Your task to perform on an android device: Go to Yahoo.com Image 0: 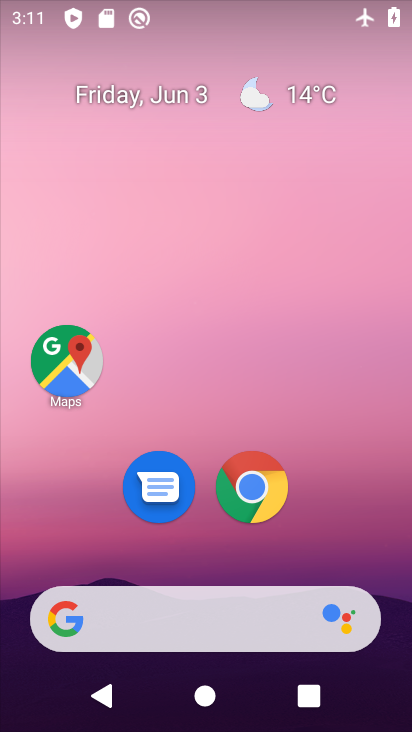
Step 0: click (268, 493)
Your task to perform on an android device: Go to Yahoo.com Image 1: 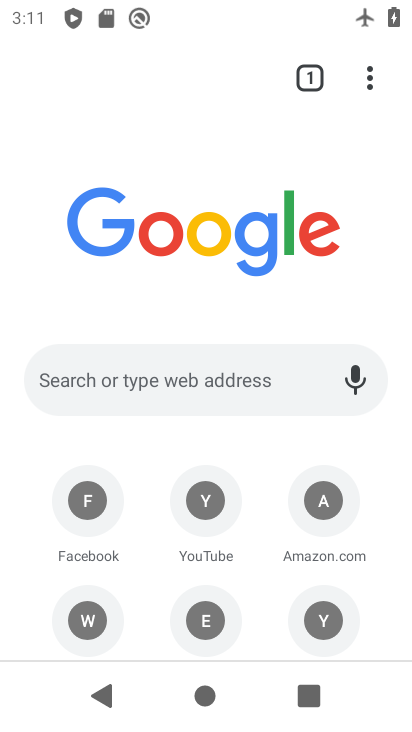
Step 1: drag from (189, 509) to (259, 268)
Your task to perform on an android device: Go to Yahoo.com Image 2: 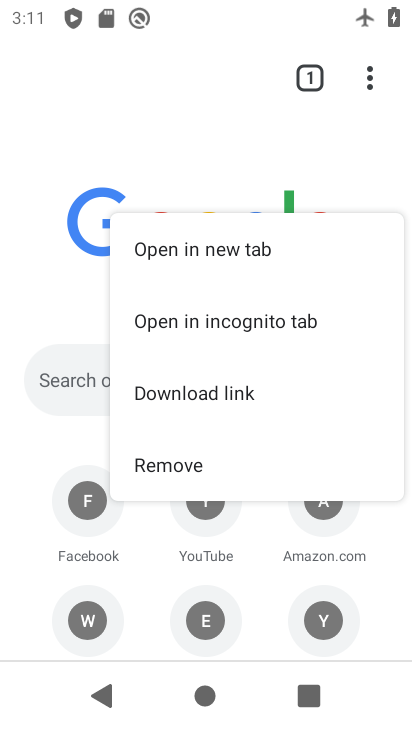
Step 2: click (22, 260)
Your task to perform on an android device: Go to Yahoo.com Image 3: 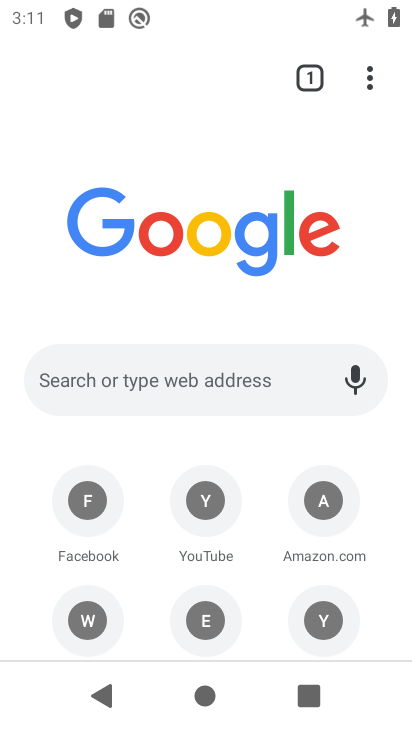
Step 3: drag from (304, 630) to (305, 338)
Your task to perform on an android device: Go to Yahoo.com Image 4: 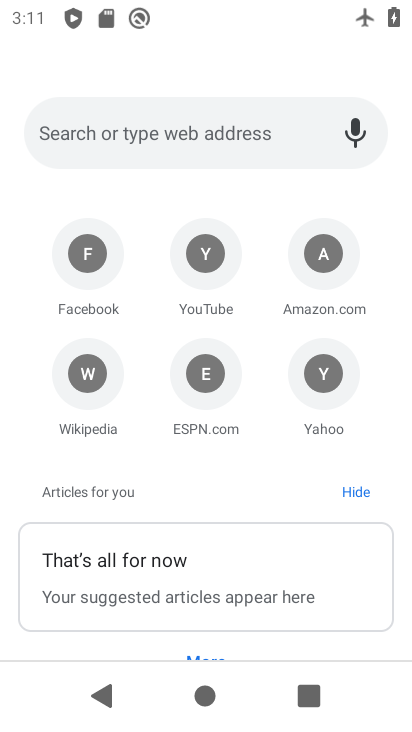
Step 4: click (327, 383)
Your task to perform on an android device: Go to Yahoo.com Image 5: 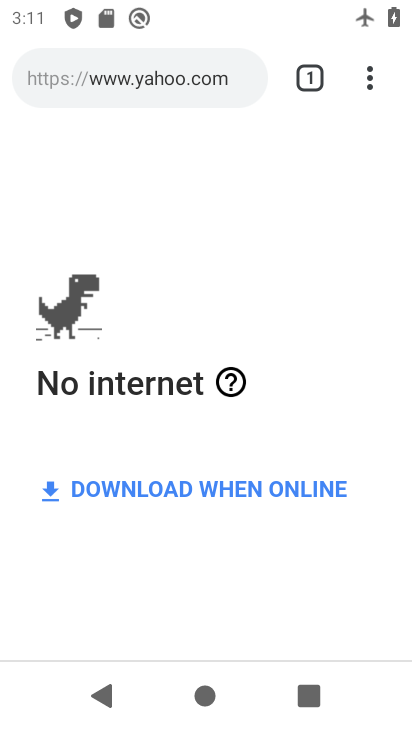
Step 5: drag from (368, 14) to (301, 516)
Your task to perform on an android device: Go to Yahoo.com Image 6: 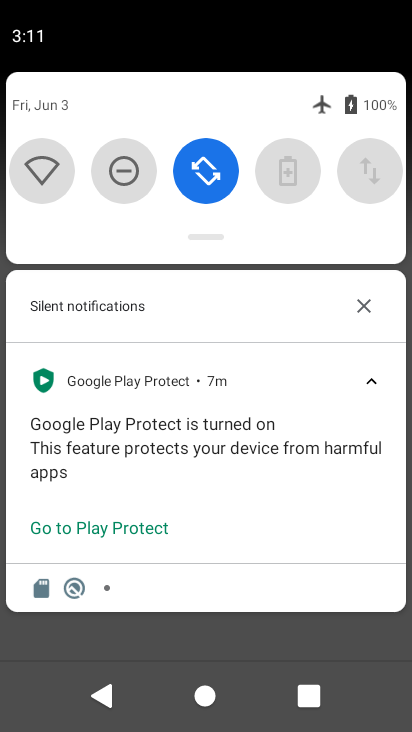
Step 6: drag from (209, 230) to (201, 563)
Your task to perform on an android device: Go to Yahoo.com Image 7: 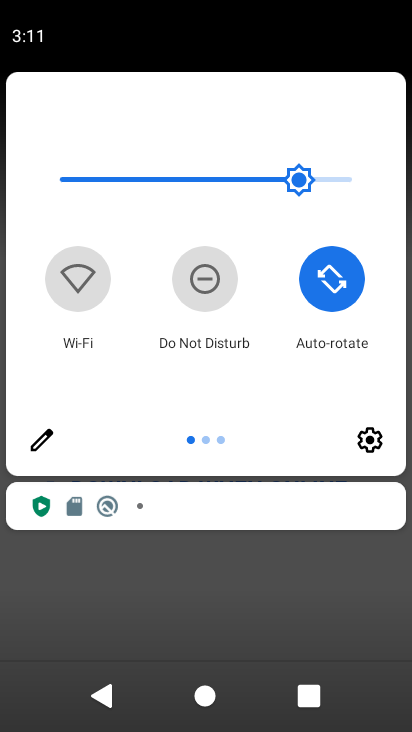
Step 7: drag from (349, 291) to (62, 265)
Your task to perform on an android device: Go to Yahoo.com Image 8: 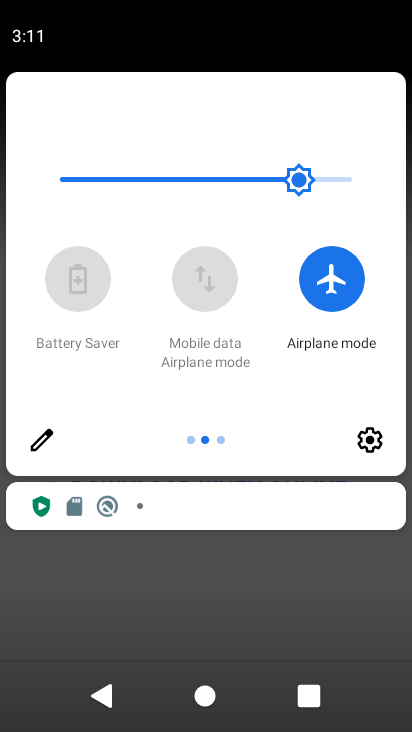
Step 8: click (336, 281)
Your task to perform on an android device: Go to Yahoo.com Image 9: 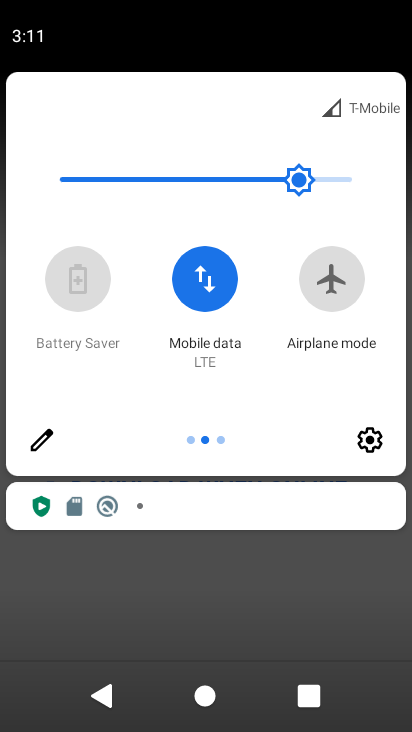
Step 9: click (150, 582)
Your task to perform on an android device: Go to Yahoo.com Image 10: 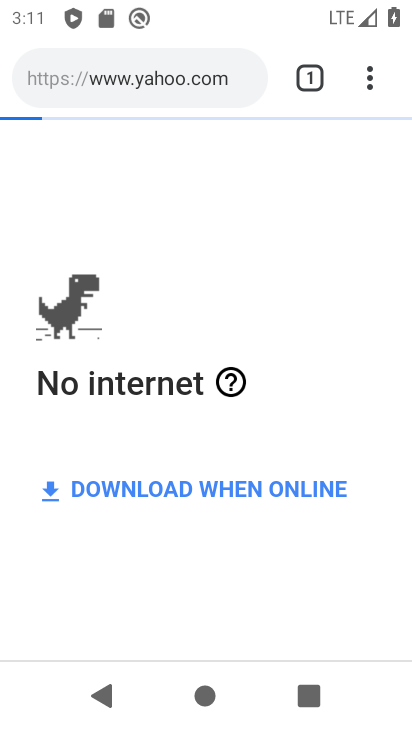
Step 10: task complete